Your task to perform on an android device: open chrome privacy settings Image 0: 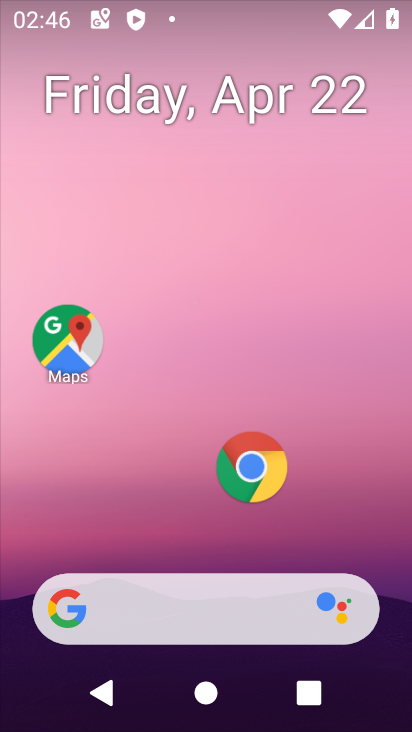
Step 0: click (249, 477)
Your task to perform on an android device: open chrome privacy settings Image 1: 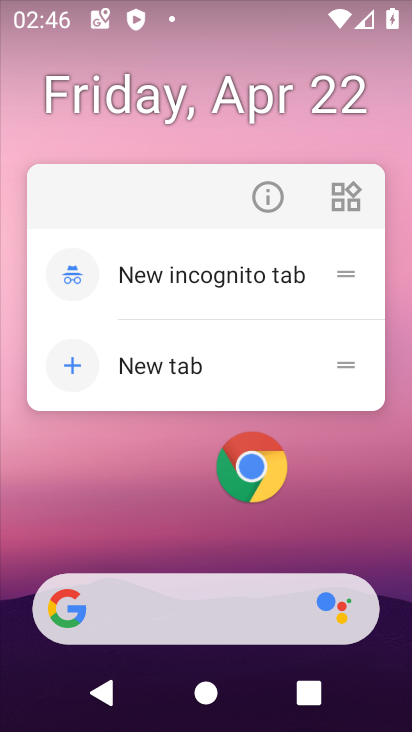
Step 1: click (278, 205)
Your task to perform on an android device: open chrome privacy settings Image 2: 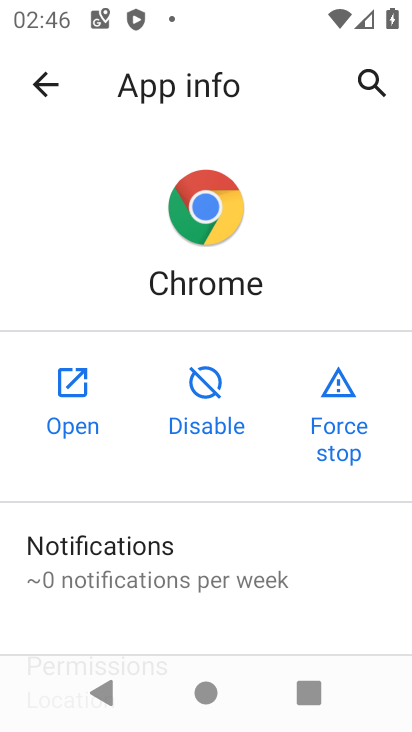
Step 2: click (81, 403)
Your task to perform on an android device: open chrome privacy settings Image 3: 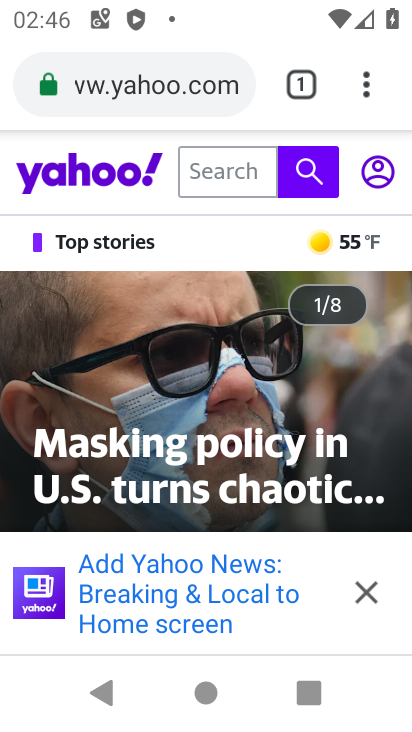
Step 3: click (374, 77)
Your task to perform on an android device: open chrome privacy settings Image 4: 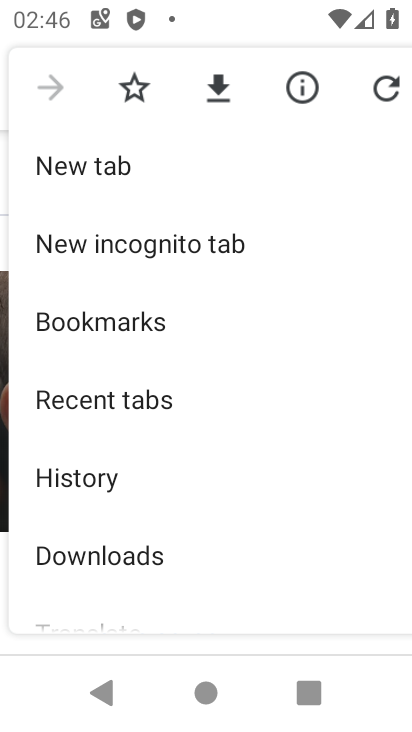
Step 4: drag from (195, 409) to (169, 89)
Your task to perform on an android device: open chrome privacy settings Image 5: 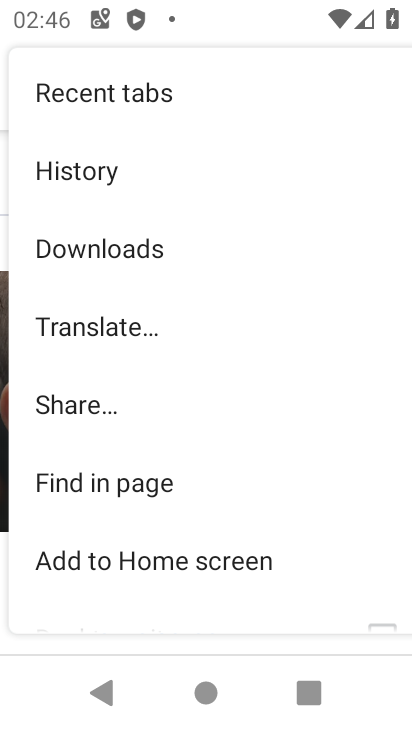
Step 5: drag from (161, 440) to (161, 58)
Your task to perform on an android device: open chrome privacy settings Image 6: 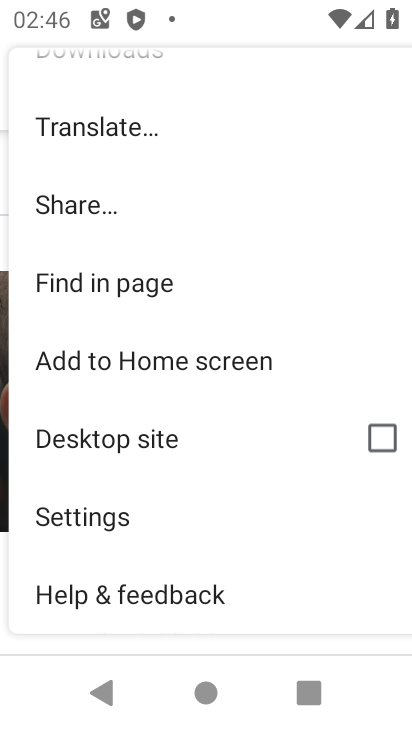
Step 6: click (96, 521)
Your task to perform on an android device: open chrome privacy settings Image 7: 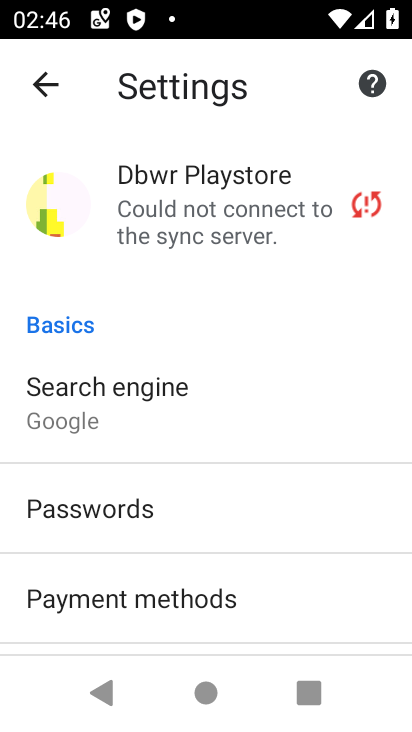
Step 7: drag from (107, 553) to (160, 271)
Your task to perform on an android device: open chrome privacy settings Image 8: 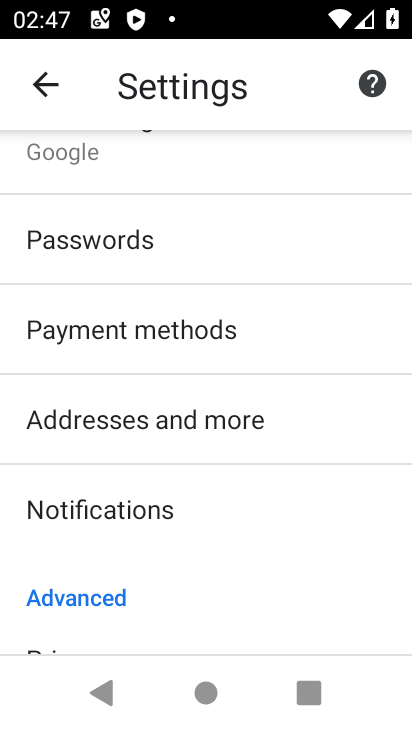
Step 8: drag from (170, 533) to (190, 349)
Your task to perform on an android device: open chrome privacy settings Image 9: 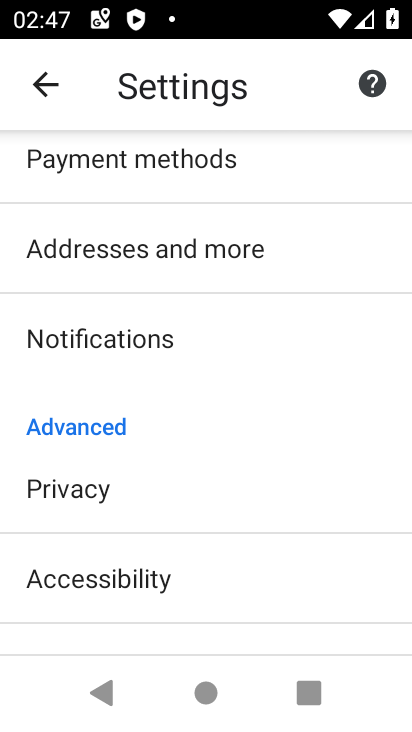
Step 9: click (64, 484)
Your task to perform on an android device: open chrome privacy settings Image 10: 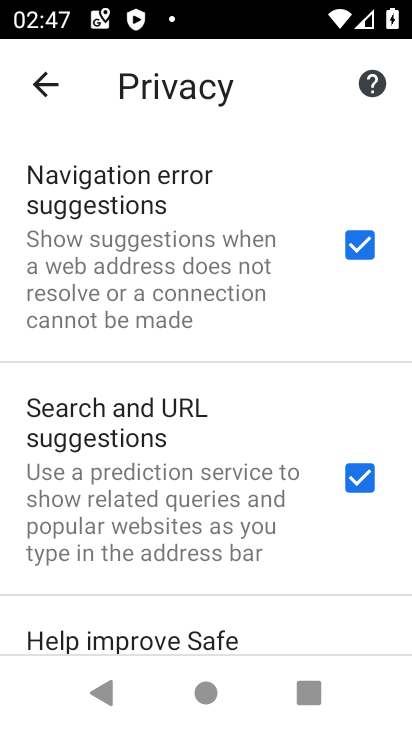
Step 10: task complete